Your task to perform on an android device: empty trash in google photos Image 0: 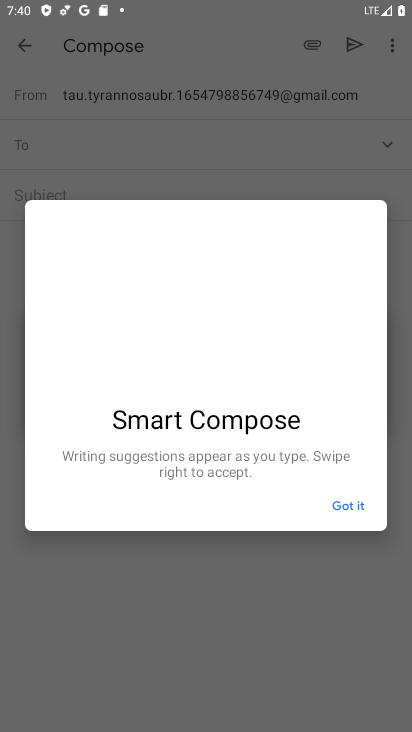
Step 0: press home button
Your task to perform on an android device: empty trash in google photos Image 1: 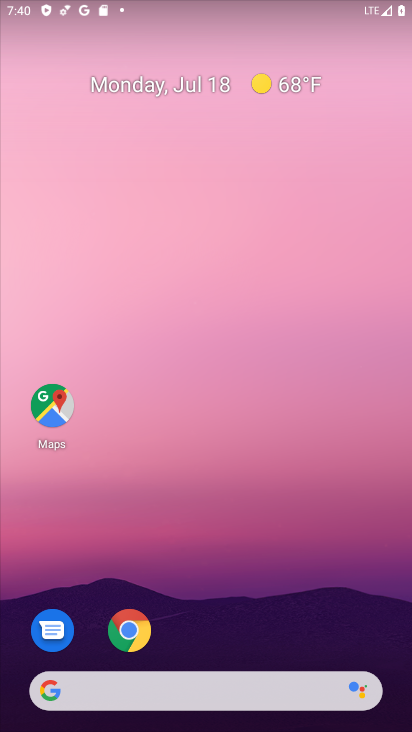
Step 1: drag from (220, 579) to (219, 314)
Your task to perform on an android device: empty trash in google photos Image 2: 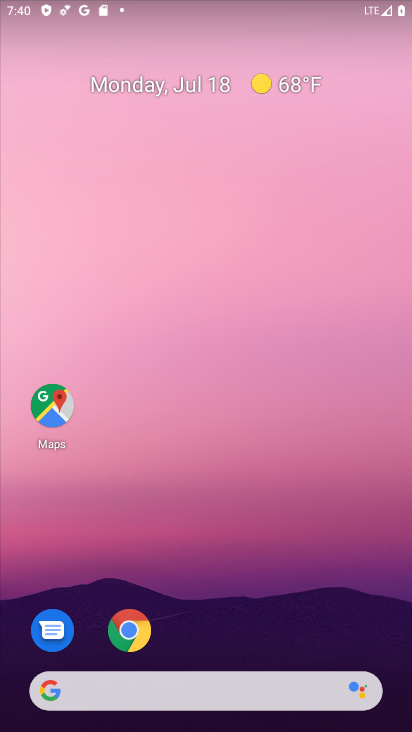
Step 2: drag from (273, 626) to (328, 274)
Your task to perform on an android device: empty trash in google photos Image 3: 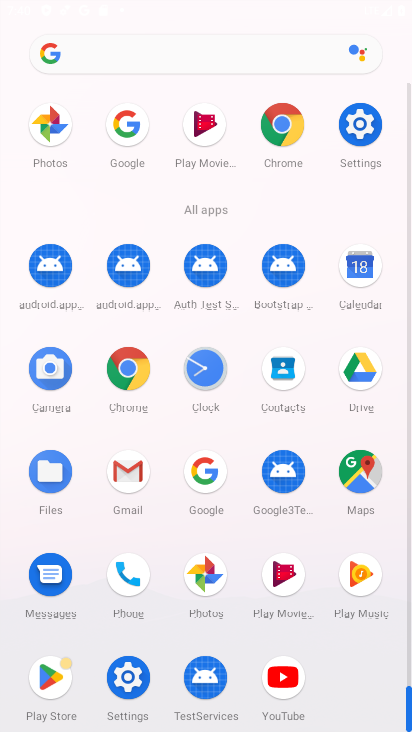
Step 3: click (201, 590)
Your task to perform on an android device: empty trash in google photos Image 4: 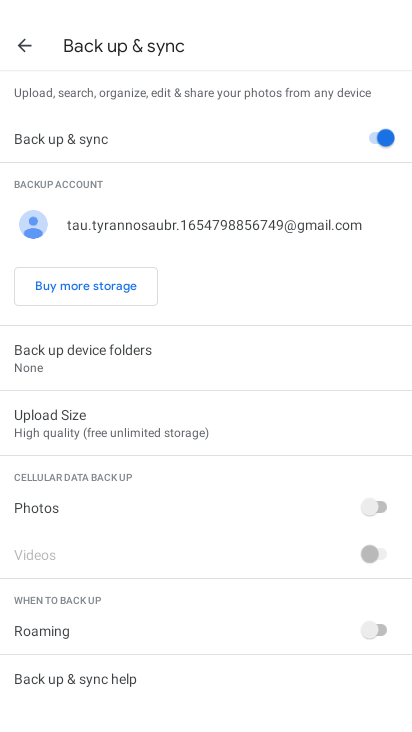
Step 4: click (28, 58)
Your task to perform on an android device: empty trash in google photos Image 5: 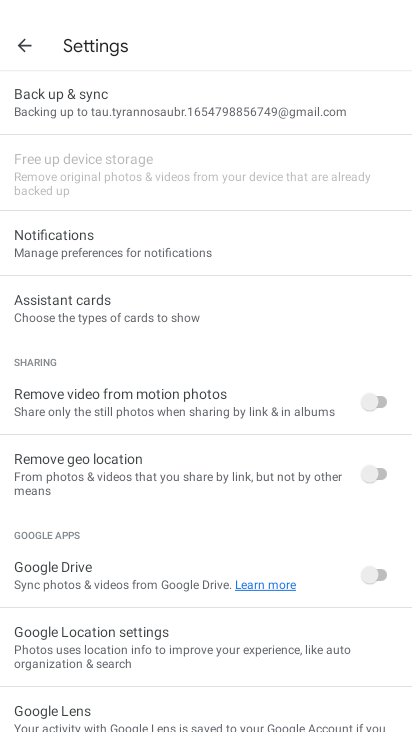
Step 5: click (23, 55)
Your task to perform on an android device: empty trash in google photos Image 6: 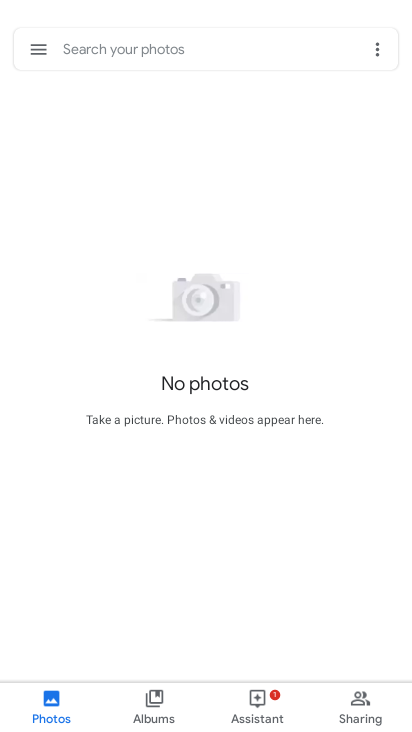
Step 6: click (35, 50)
Your task to perform on an android device: empty trash in google photos Image 7: 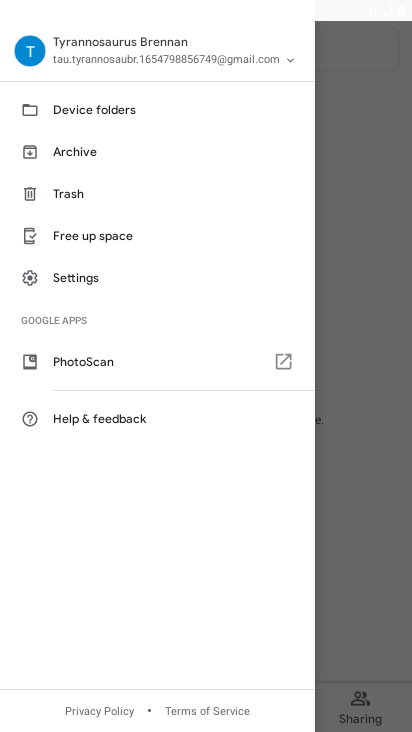
Step 7: click (94, 202)
Your task to perform on an android device: empty trash in google photos Image 8: 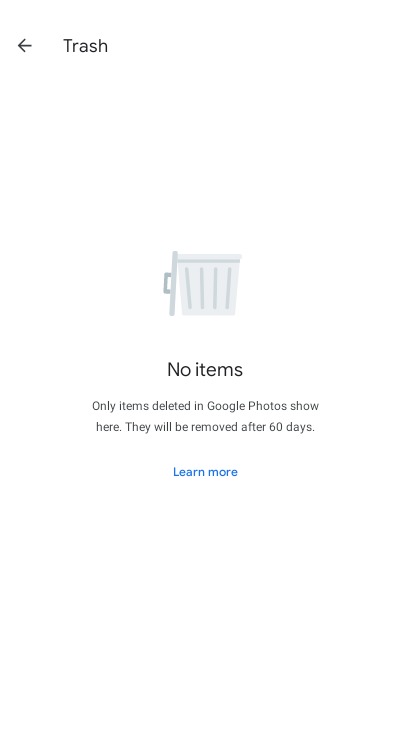
Step 8: task complete